Your task to perform on an android device: change alarm snooze length Image 0: 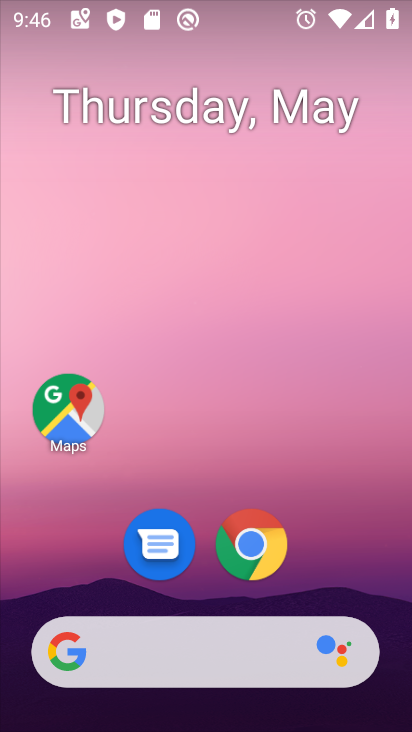
Step 0: drag from (181, 595) to (276, 231)
Your task to perform on an android device: change alarm snooze length Image 1: 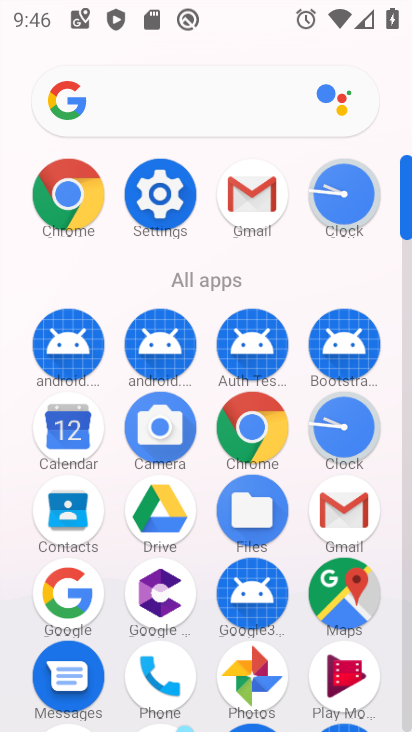
Step 1: click (332, 415)
Your task to perform on an android device: change alarm snooze length Image 2: 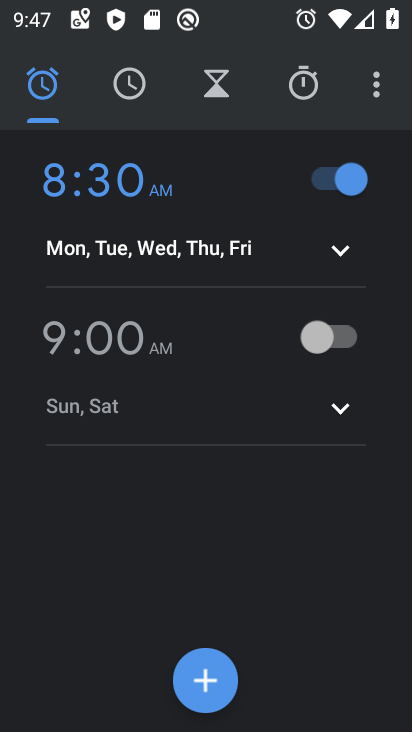
Step 2: click (373, 87)
Your task to perform on an android device: change alarm snooze length Image 3: 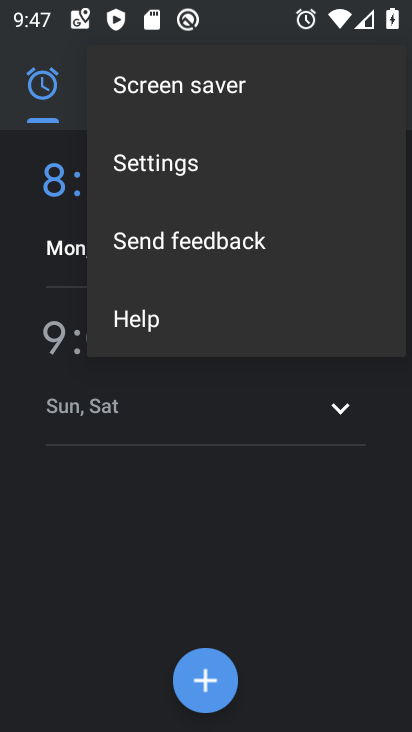
Step 3: click (116, 177)
Your task to perform on an android device: change alarm snooze length Image 4: 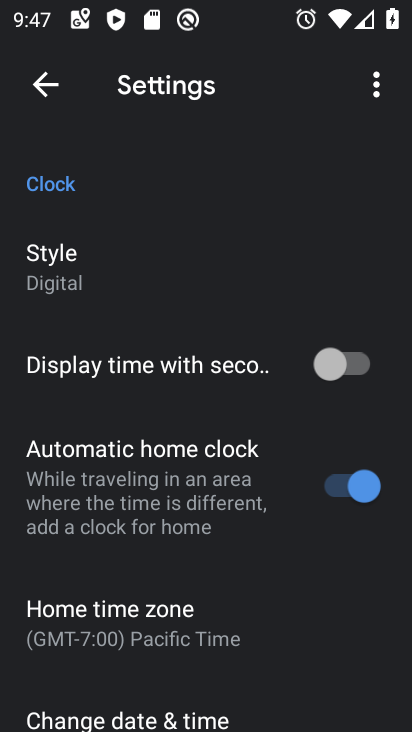
Step 4: drag from (188, 627) to (300, 278)
Your task to perform on an android device: change alarm snooze length Image 5: 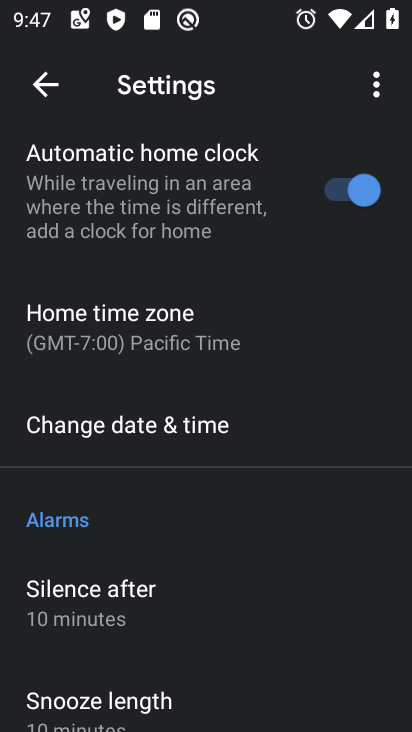
Step 5: drag from (132, 648) to (228, 387)
Your task to perform on an android device: change alarm snooze length Image 6: 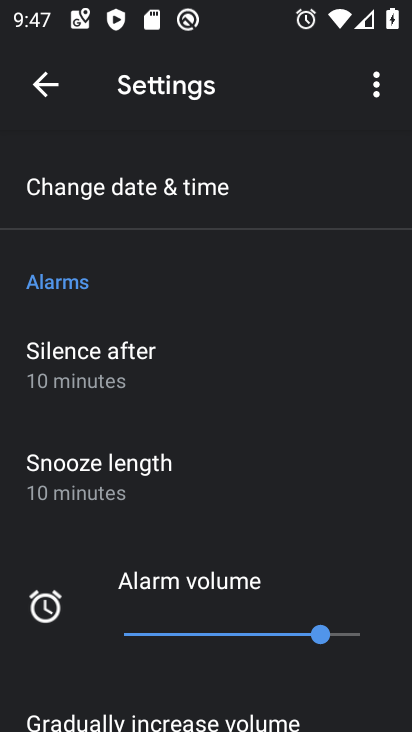
Step 6: click (107, 477)
Your task to perform on an android device: change alarm snooze length Image 7: 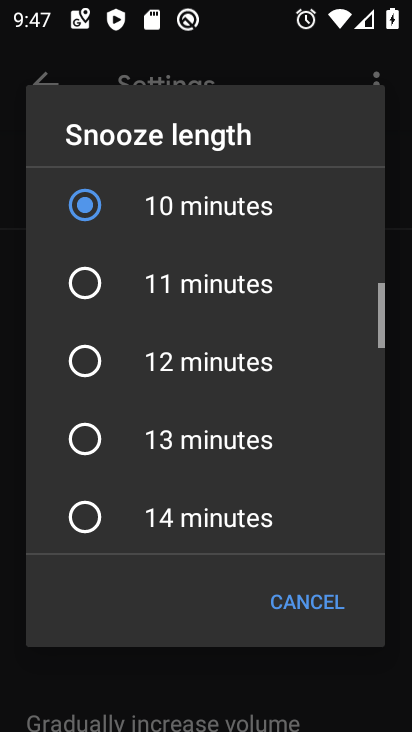
Step 7: click (75, 292)
Your task to perform on an android device: change alarm snooze length Image 8: 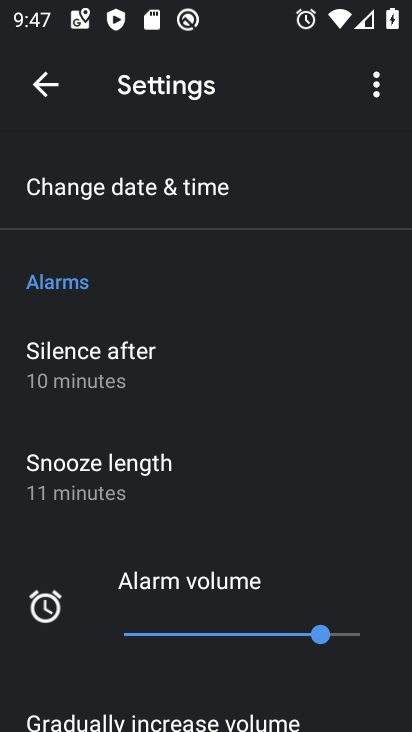
Step 8: task complete